Your task to perform on an android device: check the backup settings in the google photos Image 0: 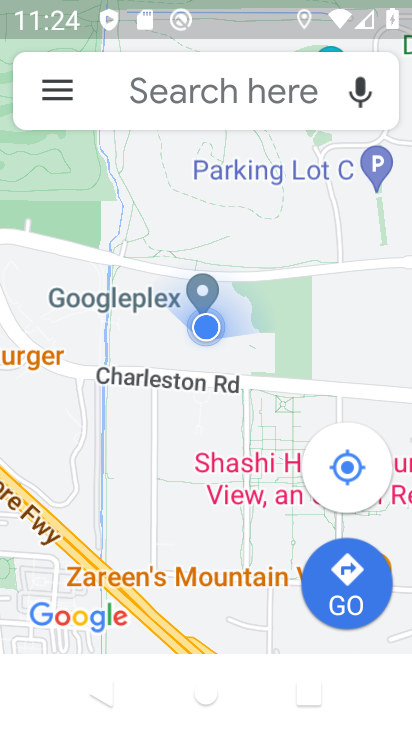
Step 0: press home button
Your task to perform on an android device: check the backup settings in the google photos Image 1: 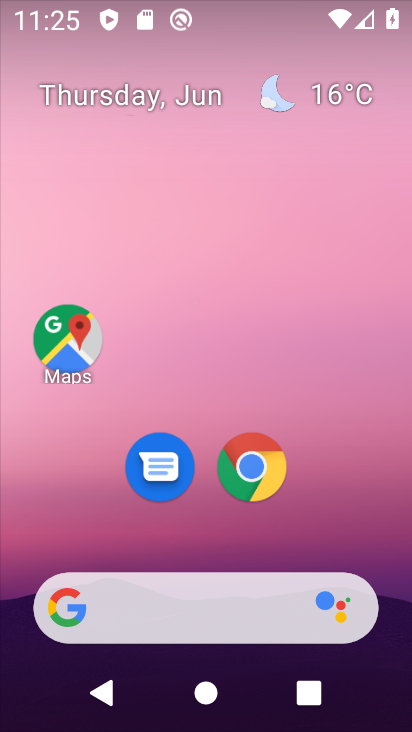
Step 1: drag from (401, 604) to (308, 140)
Your task to perform on an android device: check the backup settings in the google photos Image 2: 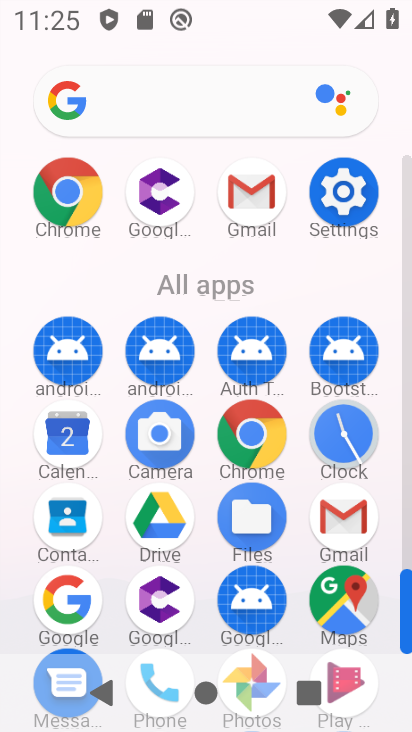
Step 2: click (407, 546)
Your task to perform on an android device: check the backup settings in the google photos Image 3: 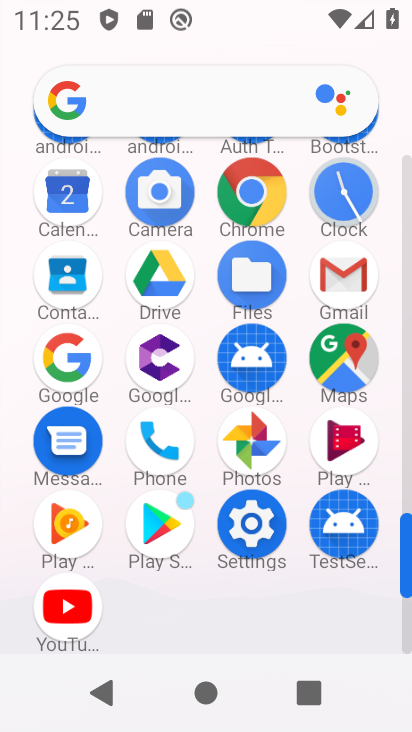
Step 3: click (252, 444)
Your task to perform on an android device: check the backup settings in the google photos Image 4: 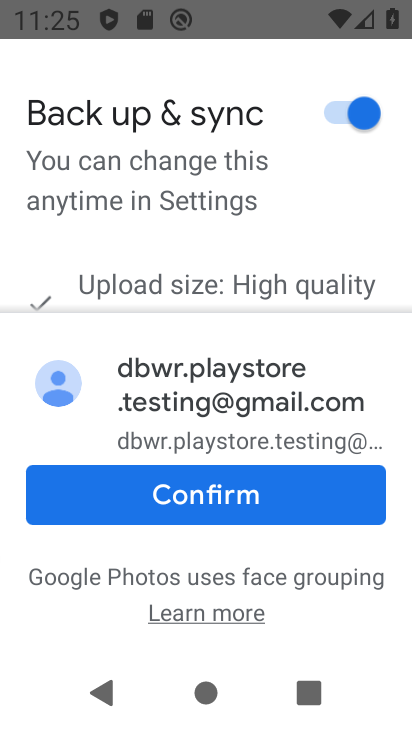
Step 4: click (211, 490)
Your task to perform on an android device: check the backup settings in the google photos Image 5: 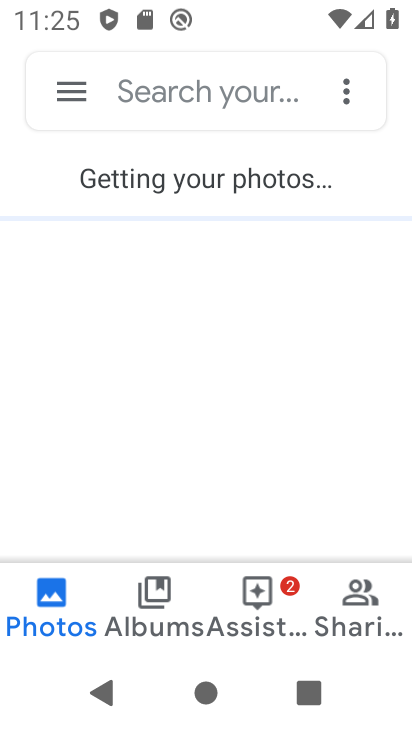
Step 5: click (72, 92)
Your task to perform on an android device: check the backup settings in the google photos Image 6: 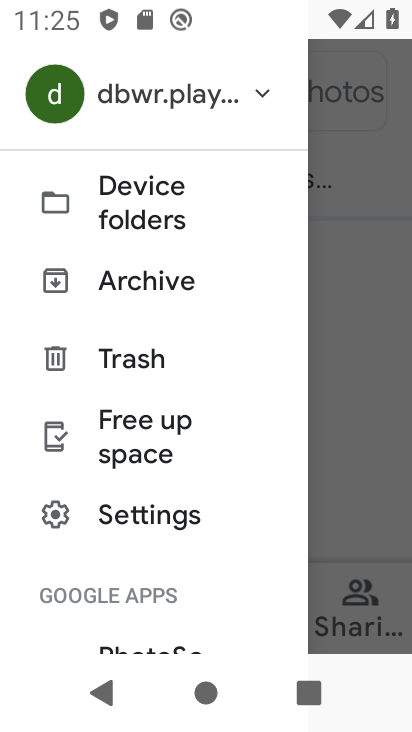
Step 6: click (148, 517)
Your task to perform on an android device: check the backup settings in the google photos Image 7: 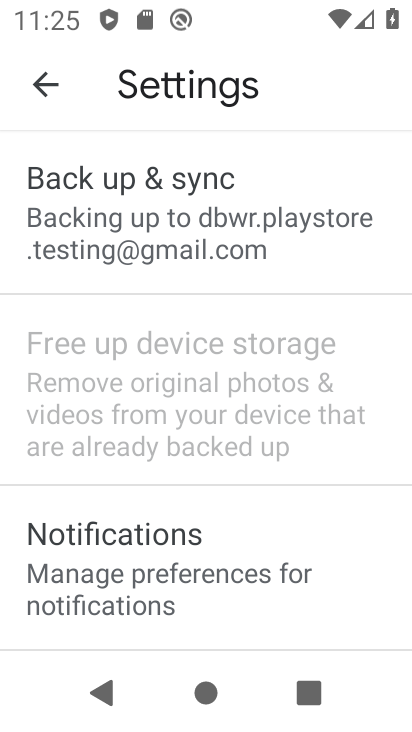
Step 7: click (144, 205)
Your task to perform on an android device: check the backup settings in the google photos Image 8: 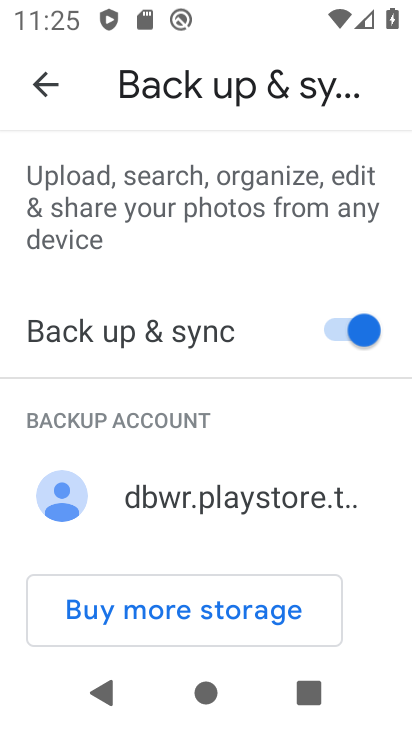
Step 8: task complete